Your task to perform on an android device: stop showing notifications on the lock screen Image 0: 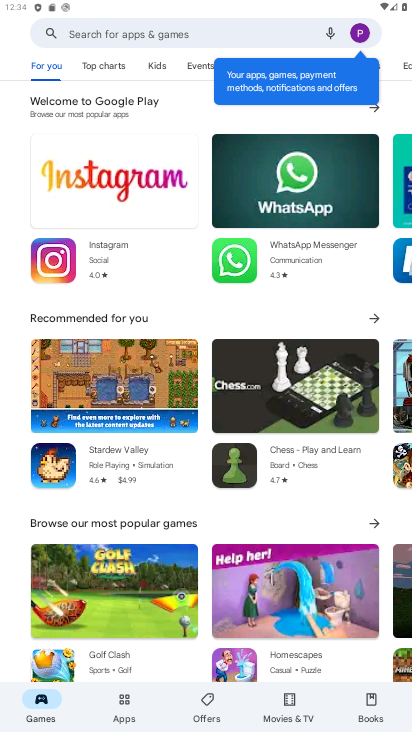
Step 0: press home button
Your task to perform on an android device: stop showing notifications on the lock screen Image 1: 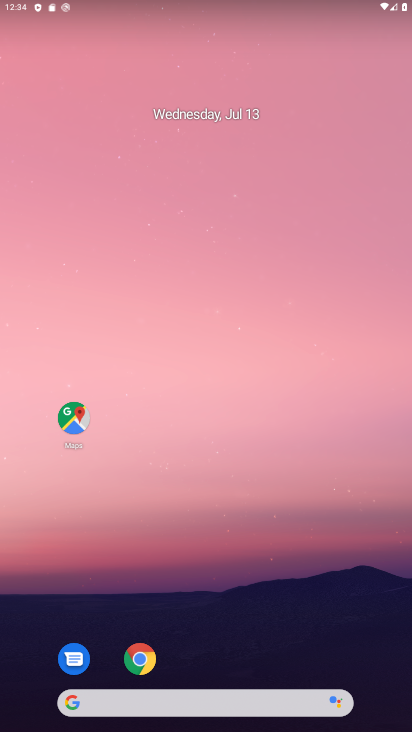
Step 1: drag from (263, 652) to (191, 349)
Your task to perform on an android device: stop showing notifications on the lock screen Image 2: 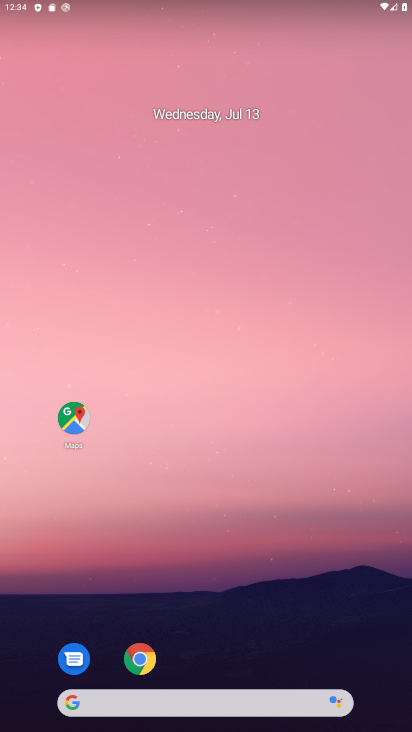
Step 2: drag from (337, 610) to (239, 84)
Your task to perform on an android device: stop showing notifications on the lock screen Image 3: 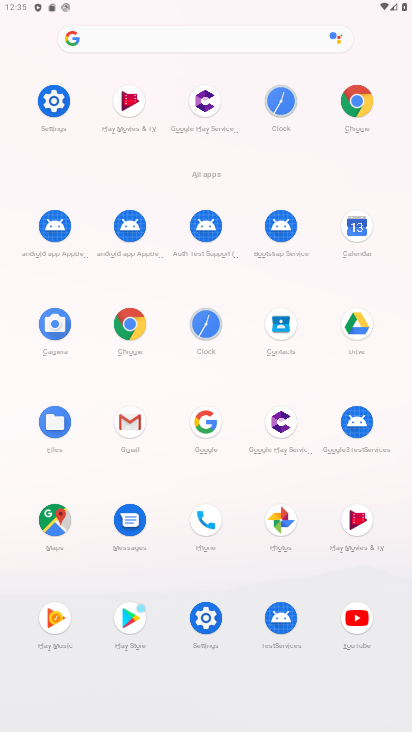
Step 3: click (207, 615)
Your task to perform on an android device: stop showing notifications on the lock screen Image 4: 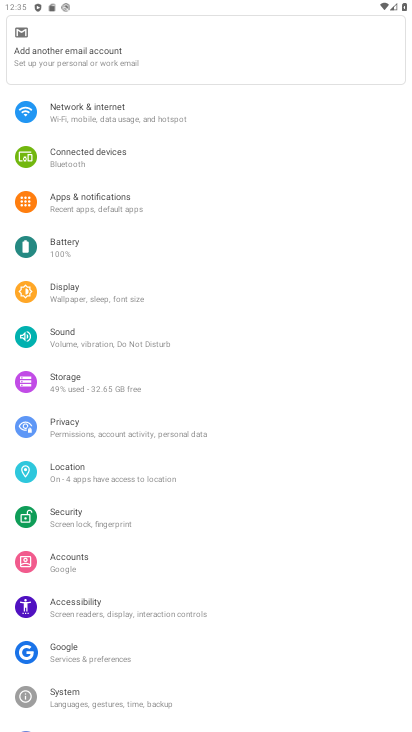
Step 4: click (98, 197)
Your task to perform on an android device: stop showing notifications on the lock screen Image 5: 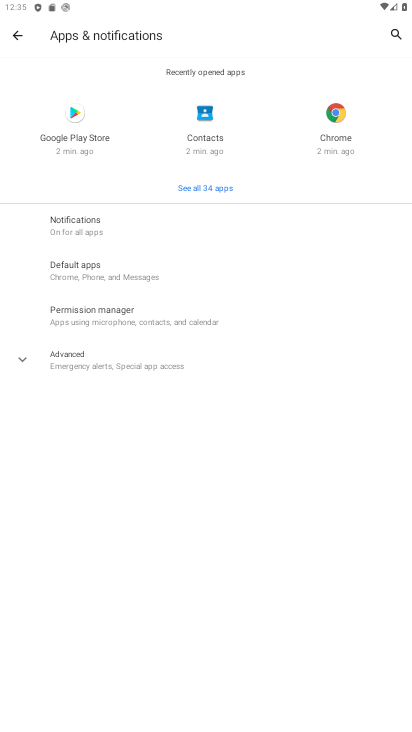
Step 5: click (80, 235)
Your task to perform on an android device: stop showing notifications on the lock screen Image 6: 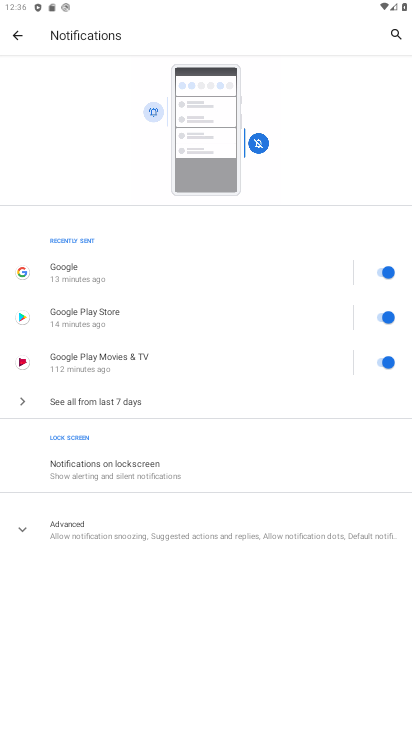
Step 6: click (12, 41)
Your task to perform on an android device: stop showing notifications on the lock screen Image 7: 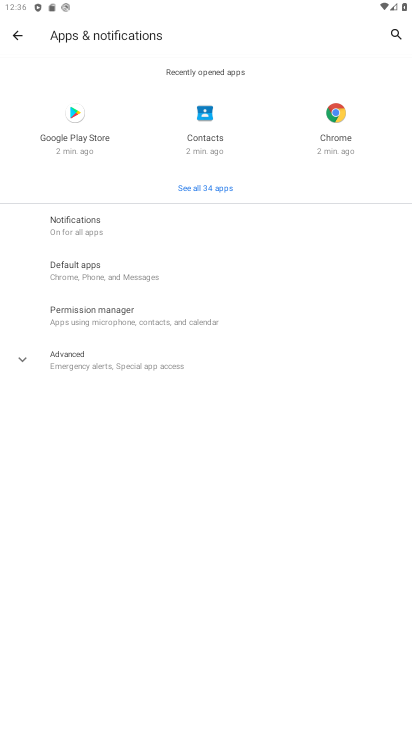
Step 7: click (47, 229)
Your task to perform on an android device: stop showing notifications on the lock screen Image 8: 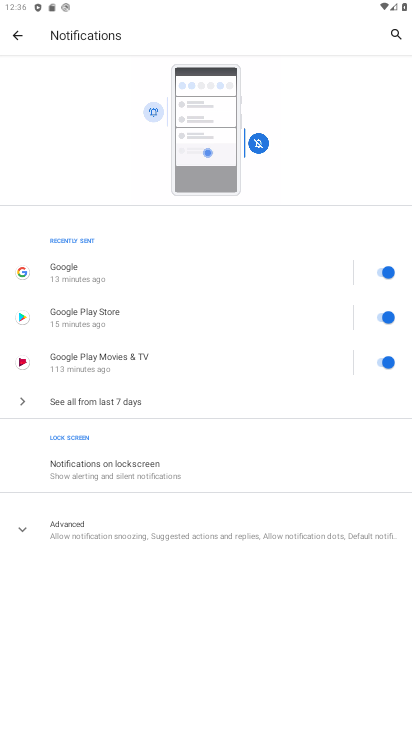
Step 8: click (79, 464)
Your task to perform on an android device: stop showing notifications on the lock screen Image 9: 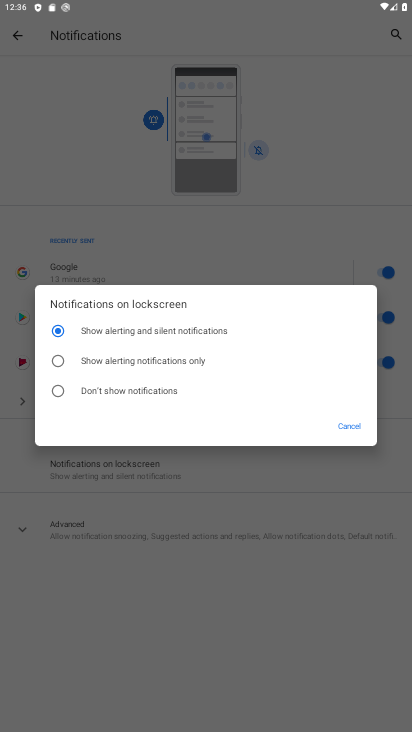
Step 9: click (87, 392)
Your task to perform on an android device: stop showing notifications on the lock screen Image 10: 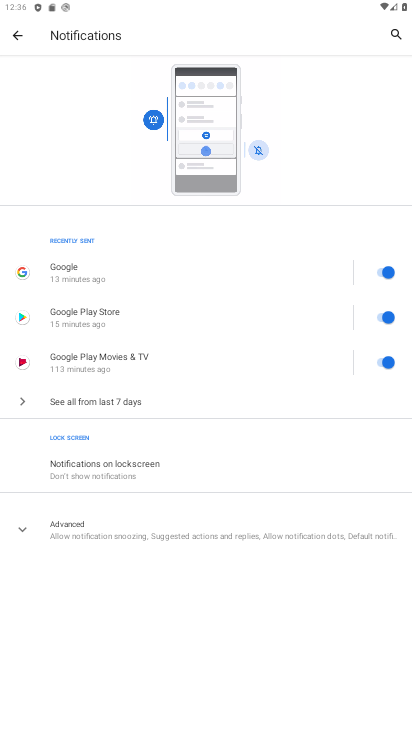
Step 10: task complete